Your task to perform on an android device: Do I have any events this weekend? Image 0: 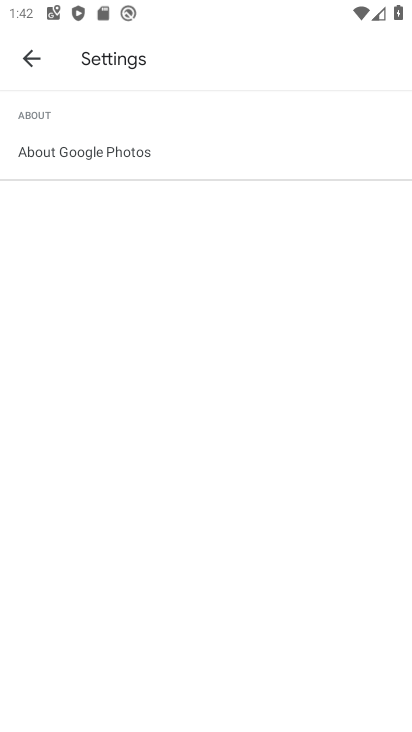
Step 0: press home button
Your task to perform on an android device: Do I have any events this weekend? Image 1: 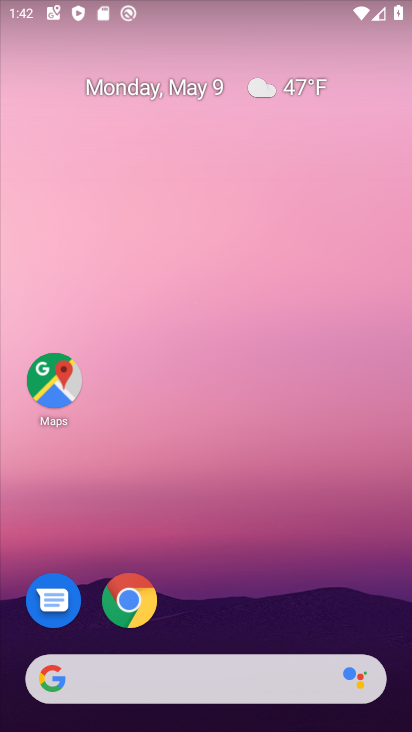
Step 1: drag from (207, 628) to (259, 38)
Your task to perform on an android device: Do I have any events this weekend? Image 2: 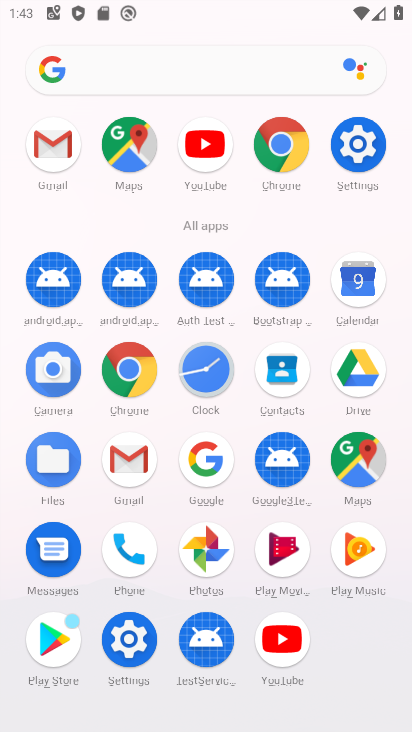
Step 2: press home button
Your task to perform on an android device: Do I have any events this weekend? Image 3: 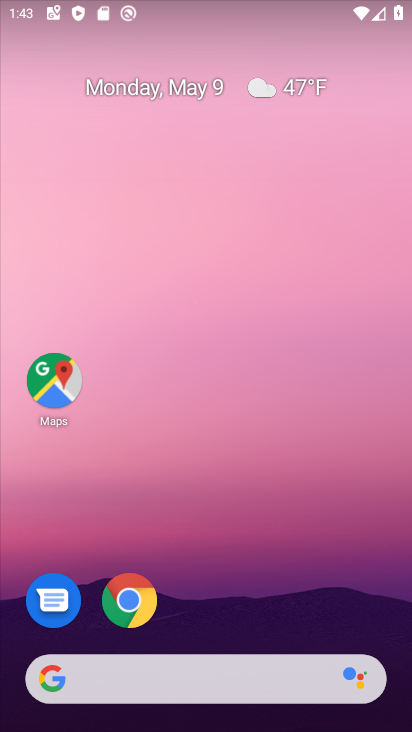
Step 3: click (180, 80)
Your task to perform on an android device: Do I have any events this weekend? Image 4: 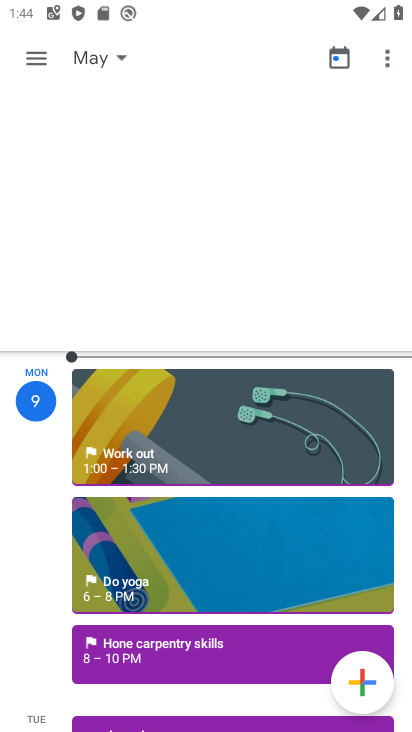
Step 4: task complete